Your task to perform on an android device: empty trash in the gmail app Image 0: 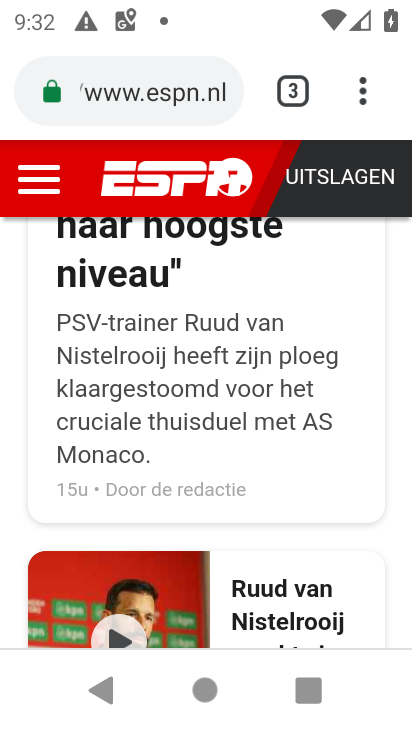
Step 0: press home button
Your task to perform on an android device: empty trash in the gmail app Image 1: 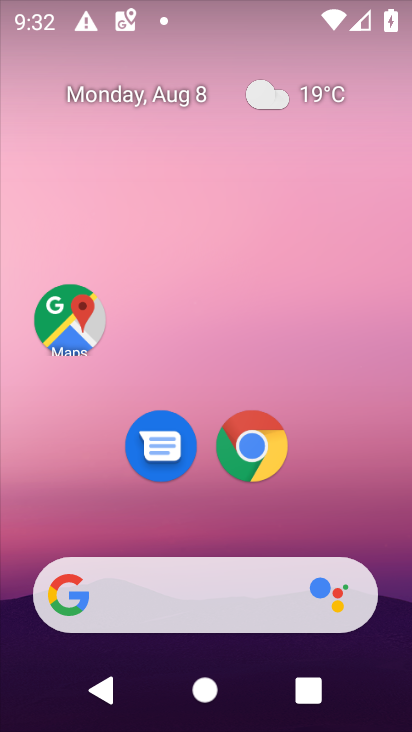
Step 1: drag from (392, 591) to (365, 217)
Your task to perform on an android device: empty trash in the gmail app Image 2: 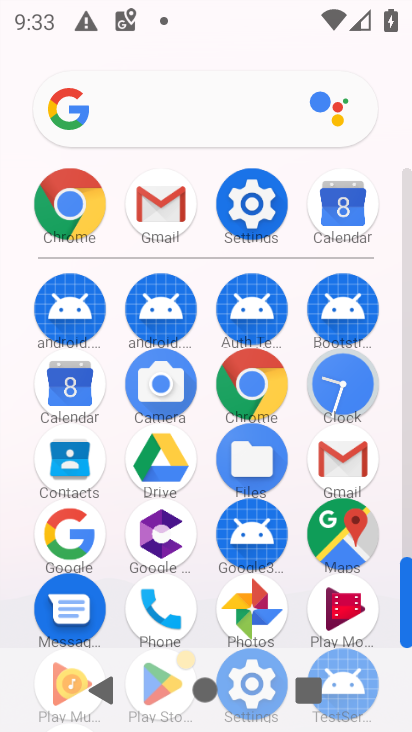
Step 2: click (342, 463)
Your task to perform on an android device: empty trash in the gmail app Image 3: 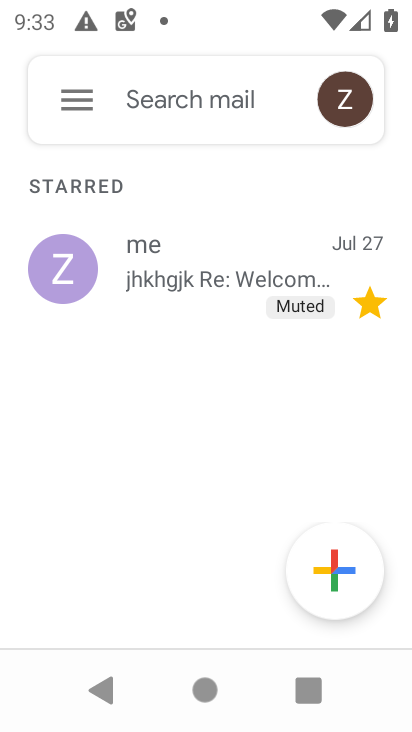
Step 3: click (75, 89)
Your task to perform on an android device: empty trash in the gmail app Image 4: 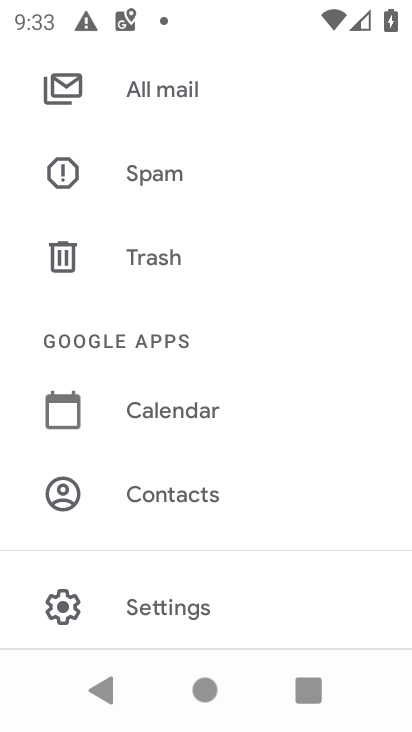
Step 4: click (160, 257)
Your task to perform on an android device: empty trash in the gmail app Image 5: 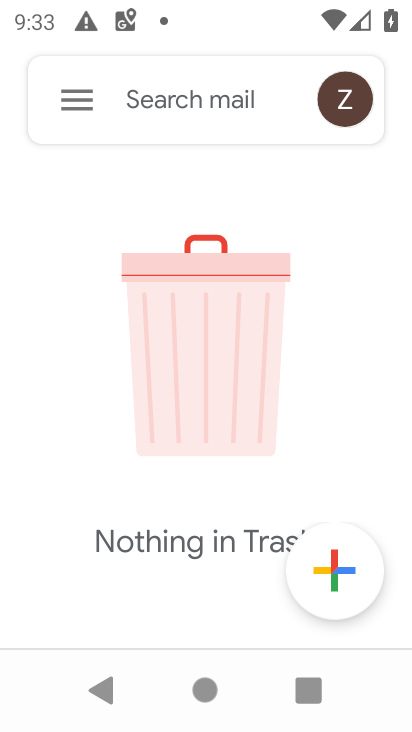
Step 5: task complete